Your task to perform on an android device: Open network settings Image 0: 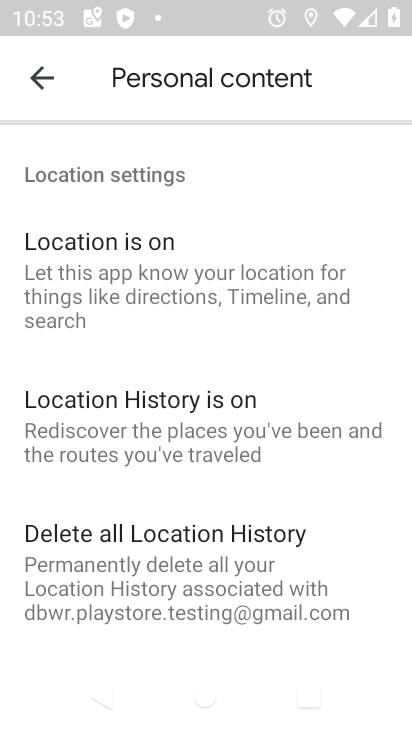
Step 0: press home button
Your task to perform on an android device: Open network settings Image 1: 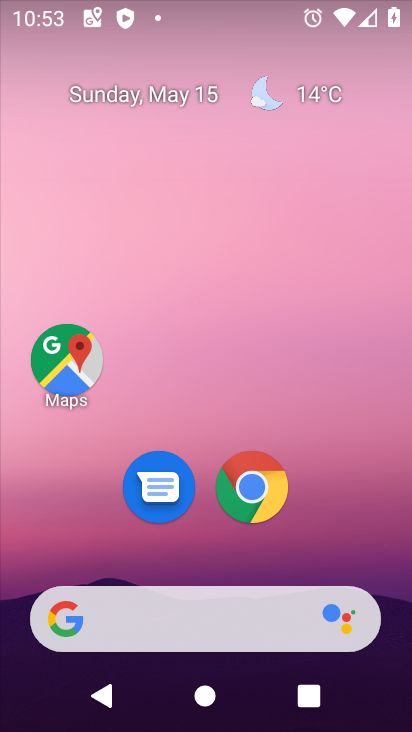
Step 1: drag from (396, 622) to (316, 50)
Your task to perform on an android device: Open network settings Image 2: 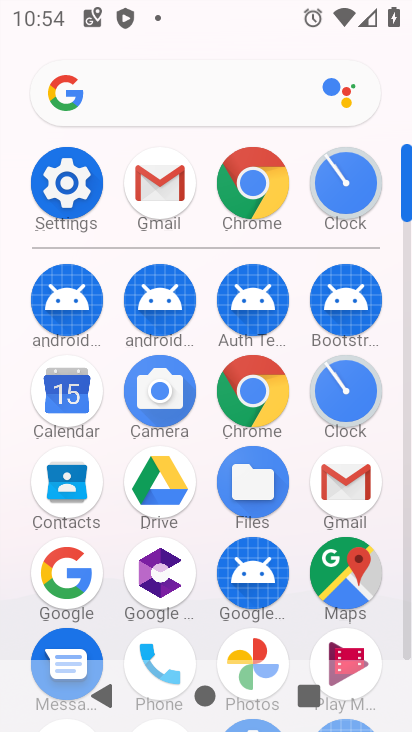
Step 2: click (406, 635)
Your task to perform on an android device: Open network settings Image 3: 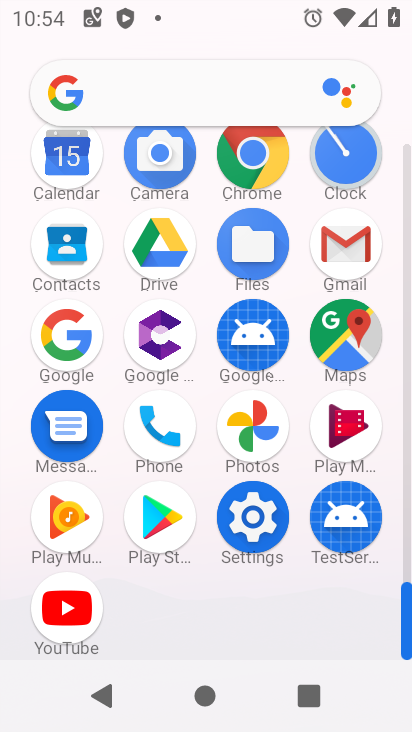
Step 3: click (252, 518)
Your task to perform on an android device: Open network settings Image 4: 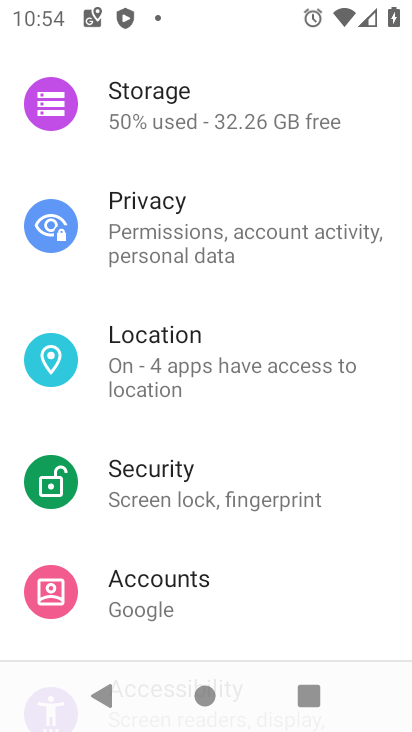
Step 4: drag from (379, 162) to (343, 521)
Your task to perform on an android device: Open network settings Image 5: 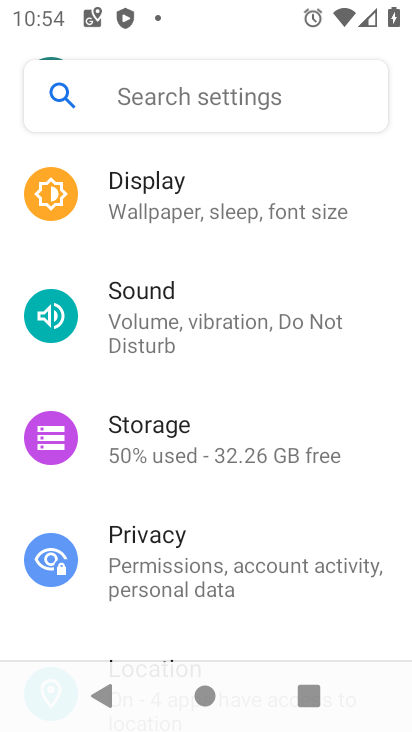
Step 5: drag from (369, 204) to (331, 495)
Your task to perform on an android device: Open network settings Image 6: 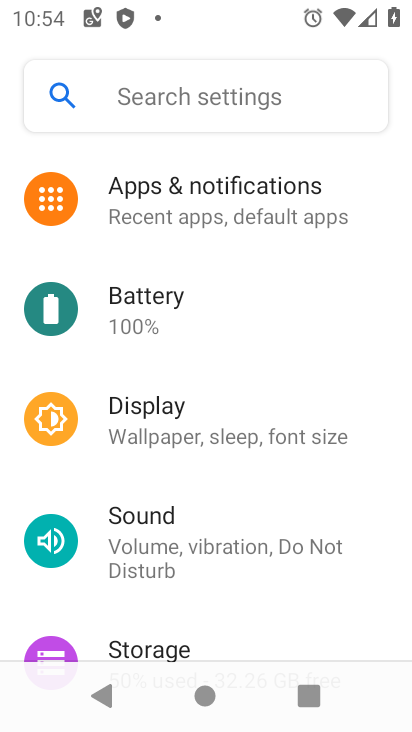
Step 6: drag from (347, 281) to (337, 559)
Your task to perform on an android device: Open network settings Image 7: 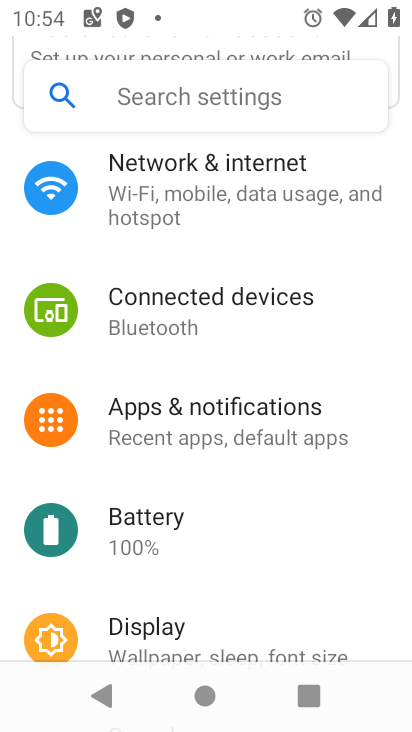
Step 7: click (163, 184)
Your task to perform on an android device: Open network settings Image 8: 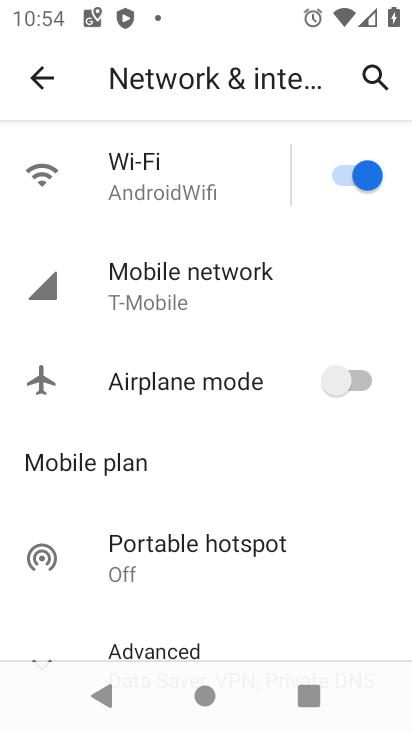
Step 8: click (148, 277)
Your task to perform on an android device: Open network settings Image 9: 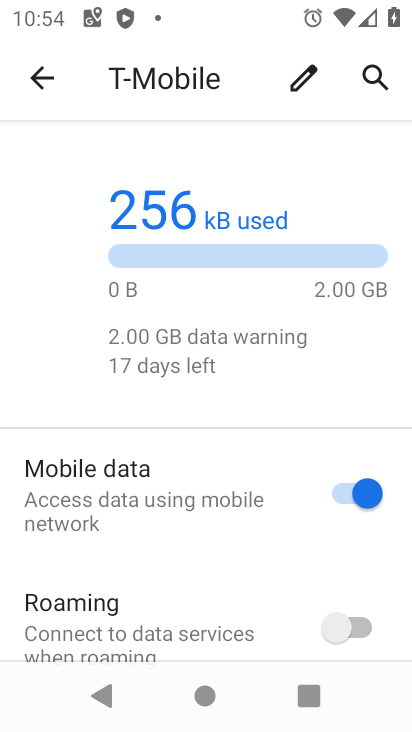
Step 9: drag from (260, 581) to (277, 261)
Your task to perform on an android device: Open network settings Image 10: 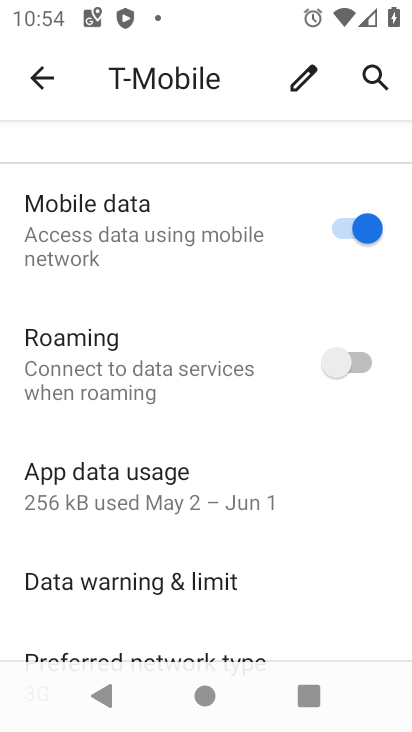
Step 10: drag from (255, 556) to (256, 201)
Your task to perform on an android device: Open network settings Image 11: 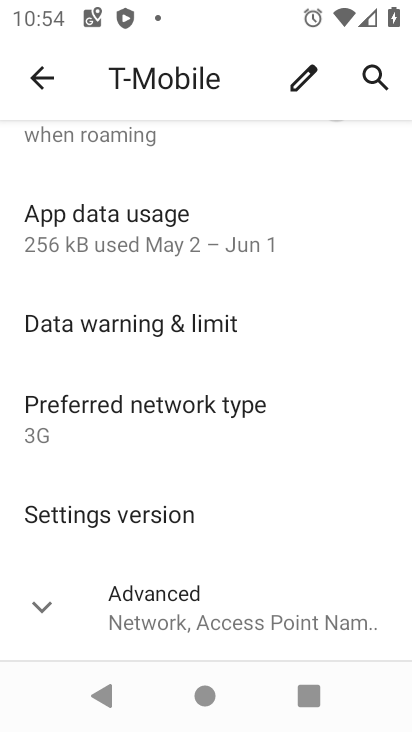
Step 11: click (35, 611)
Your task to perform on an android device: Open network settings Image 12: 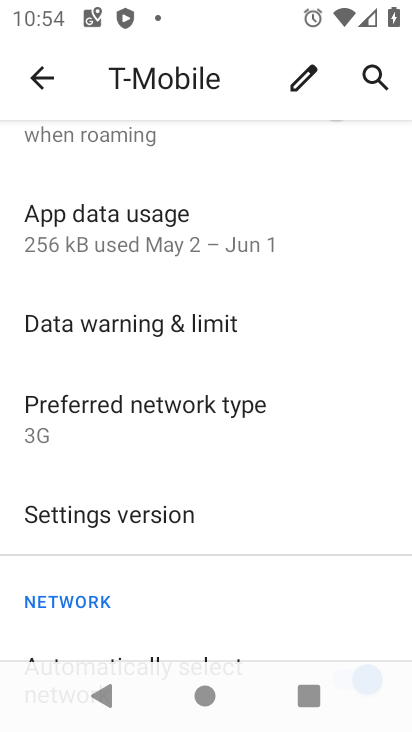
Step 12: task complete